Your task to perform on an android device: allow notifications from all sites in the chrome app Image 0: 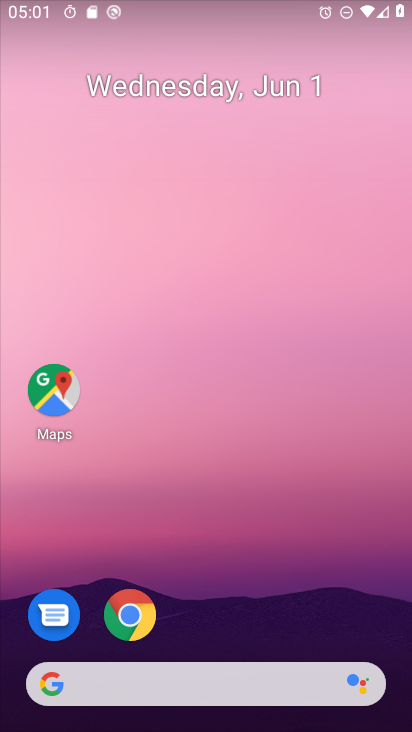
Step 0: drag from (259, 670) to (286, 12)
Your task to perform on an android device: allow notifications from all sites in the chrome app Image 1: 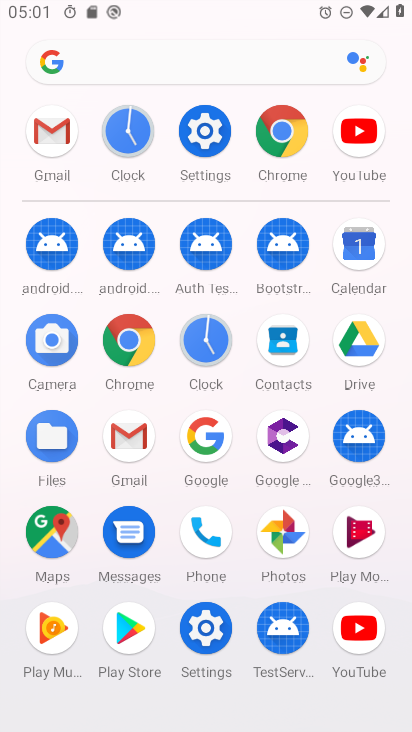
Step 1: click (126, 332)
Your task to perform on an android device: allow notifications from all sites in the chrome app Image 2: 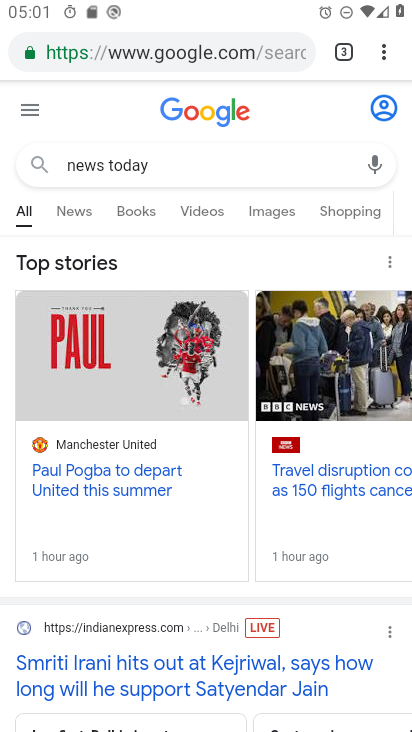
Step 2: drag from (381, 38) to (237, 585)
Your task to perform on an android device: allow notifications from all sites in the chrome app Image 3: 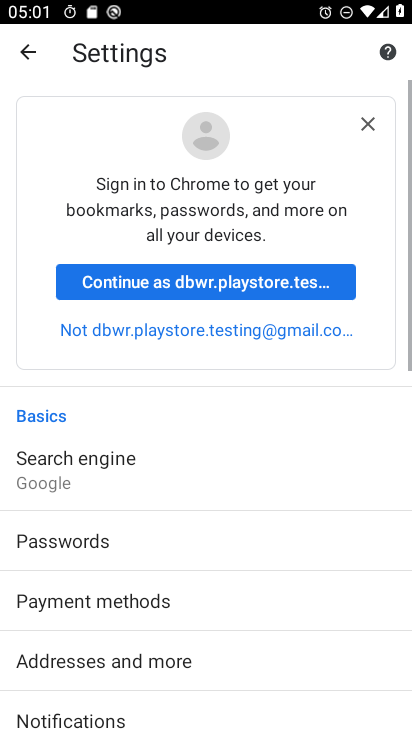
Step 3: drag from (237, 579) to (184, 3)
Your task to perform on an android device: allow notifications from all sites in the chrome app Image 4: 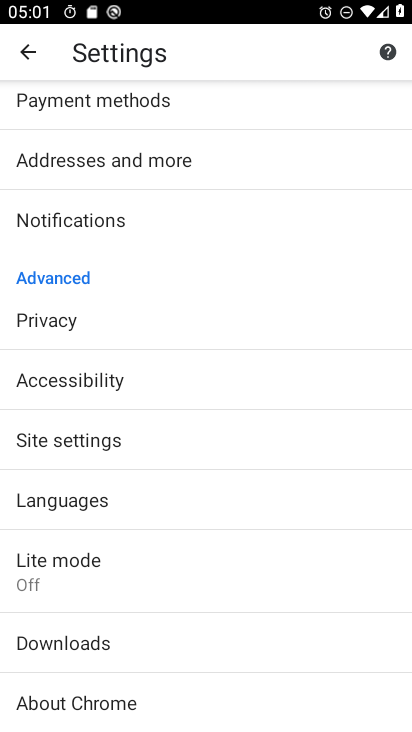
Step 4: drag from (103, 687) to (54, 451)
Your task to perform on an android device: allow notifications from all sites in the chrome app Image 5: 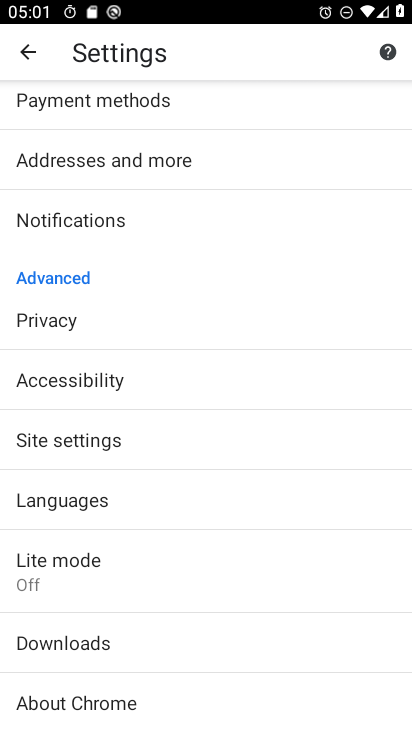
Step 5: click (90, 444)
Your task to perform on an android device: allow notifications from all sites in the chrome app Image 6: 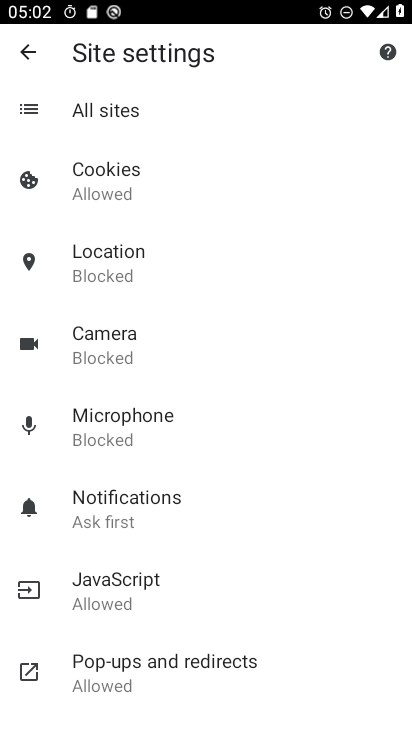
Step 6: click (157, 506)
Your task to perform on an android device: allow notifications from all sites in the chrome app Image 7: 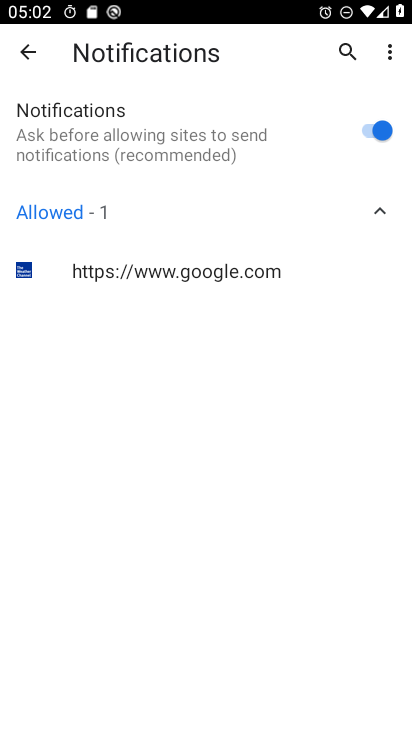
Step 7: task complete